Your task to perform on an android device: turn on location history Image 0: 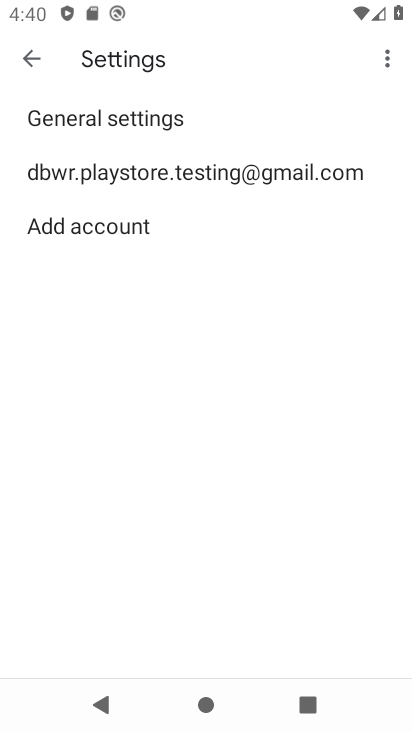
Step 0: press home button
Your task to perform on an android device: turn on location history Image 1: 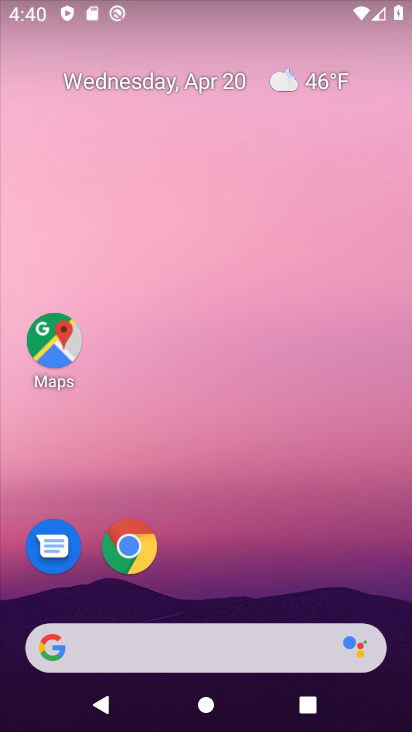
Step 1: drag from (333, 508) to (335, 44)
Your task to perform on an android device: turn on location history Image 2: 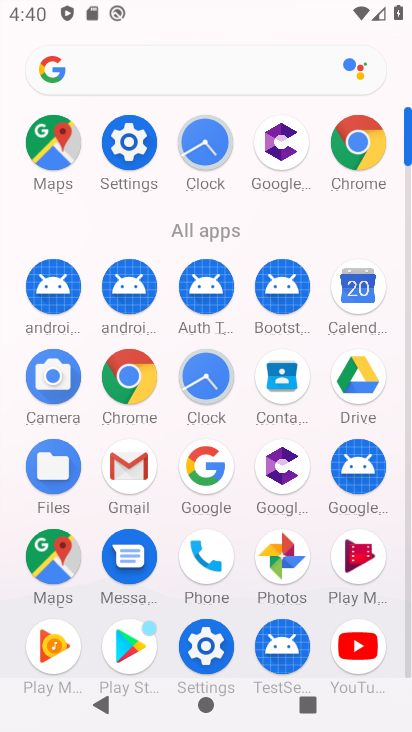
Step 2: click (106, 139)
Your task to perform on an android device: turn on location history Image 3: 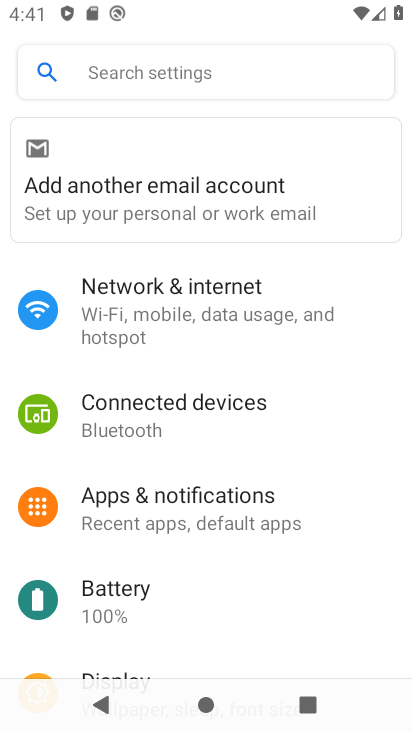
Step 3: drag from (282, 568) to (322, 246)
Your task to perform on an android device: turn on location history Image 4: 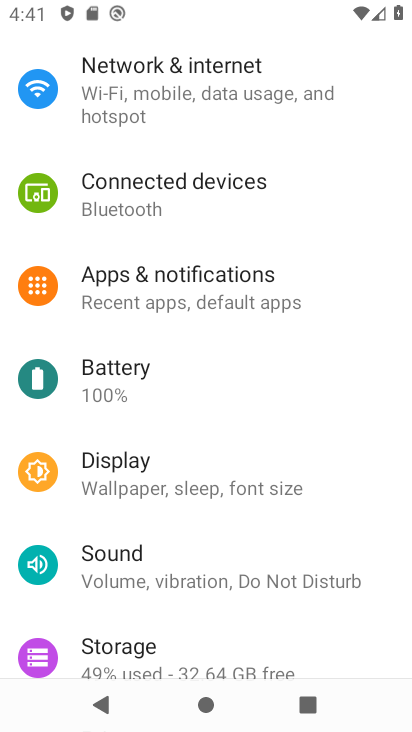
Step 4: drag from (164, 526) to (205, 216)
Your task to perform on an android device: turn on location history Image 5: 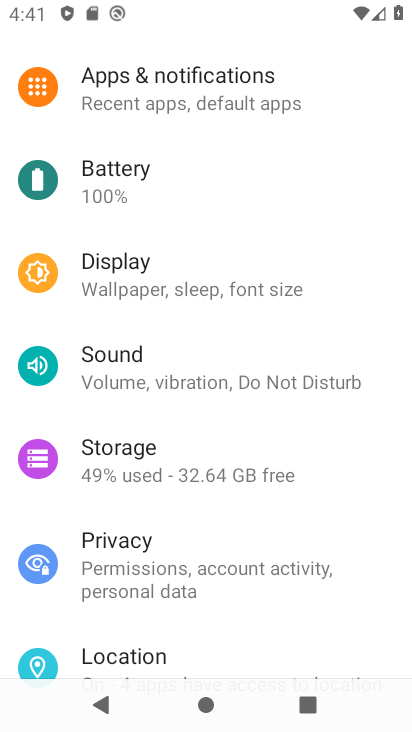
Step 5: drag from (206, 578) to (293, 245)
Your task to perform on an android device: turn on location history Image 6: 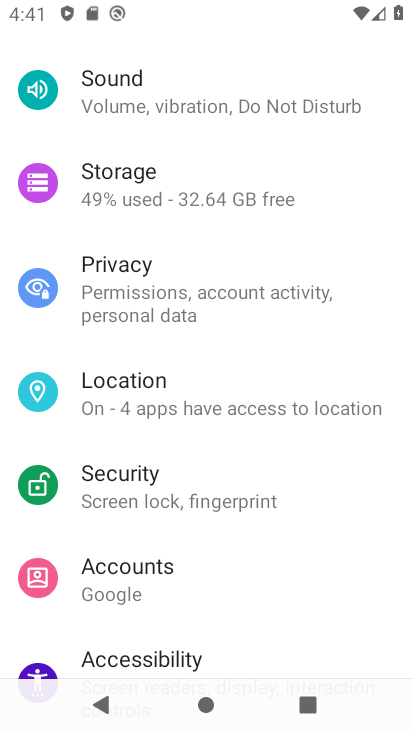
Step 6: click (175, 403)
Your task to perform on an android device: turn on location history Image 7: 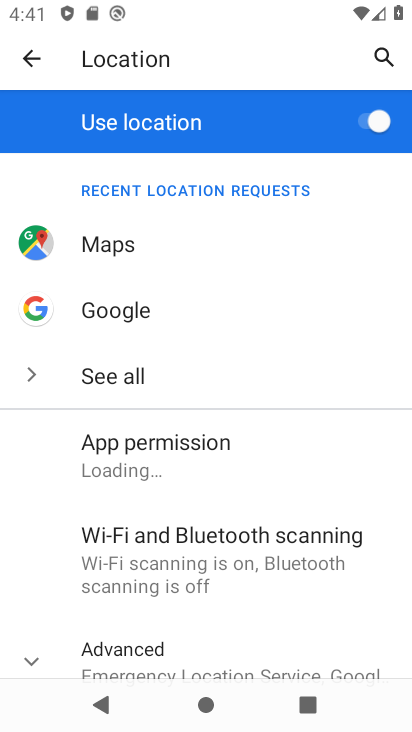
Step 7: drag from (153, 568) to (209, 257)
Your task to perform on an android device: turn on location history Image 8: 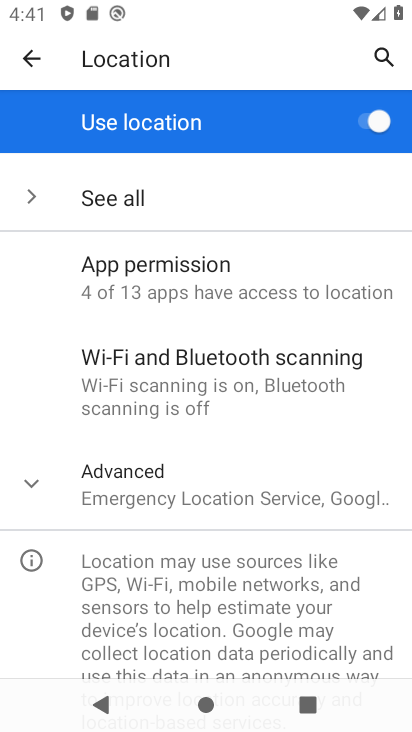
Step 8: click (144, 491)
Your task to perform on an android device: turn on location history Image 9: 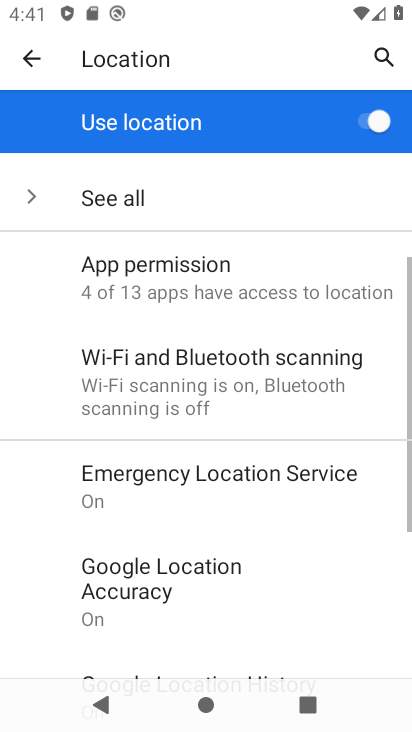
Step 9: drag from (208, 571) to (275, 235)
Your task to perform on an android device: turn on location history Image 10: 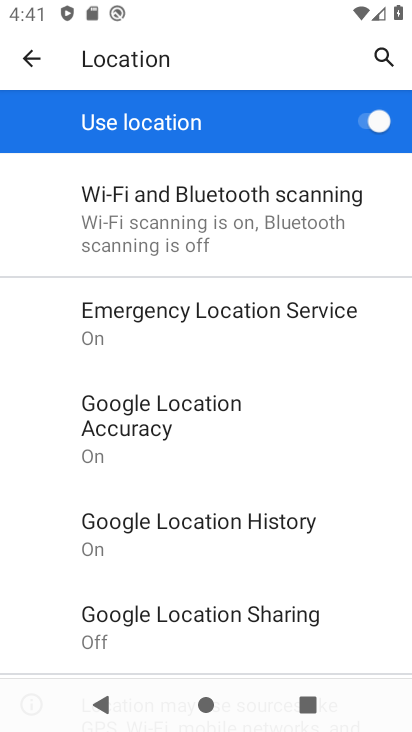
Step 10: click (206, 549)
Your task to perform on an android device: turn on location history Image 11: 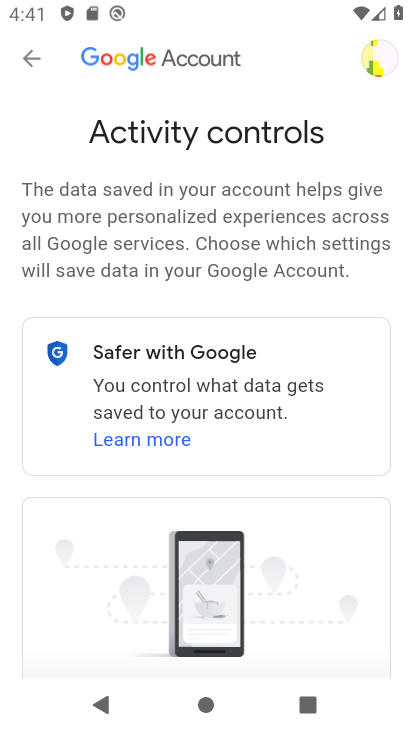
Step 11: drag from (265, 611) to (342, 344)
Your task to perform on an android device: turn on location history Image 12: 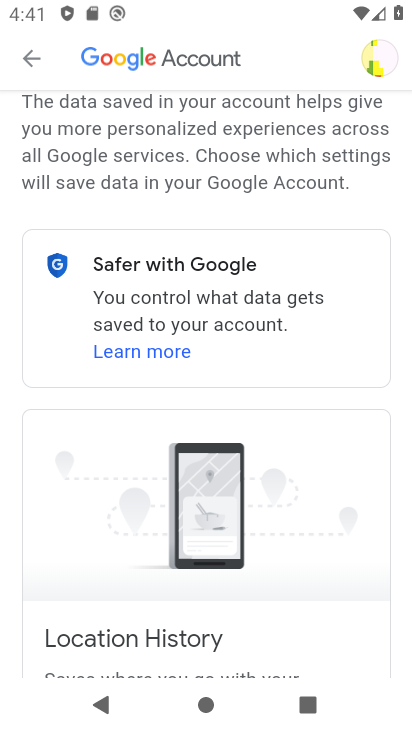
Step 12: drag from (283, 474) to (277, 151)
Your task to perform on an android device: turn on location history Image 13: 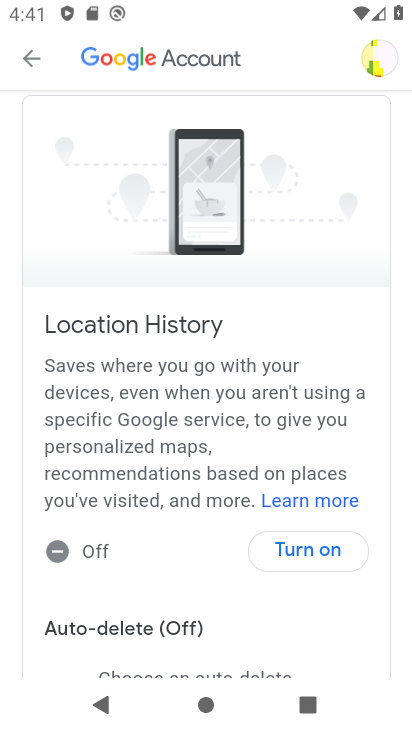
Step 13: drag from (197, 561) to (213, 201)
Your task to perform on an android device: turn on location history Image 14: 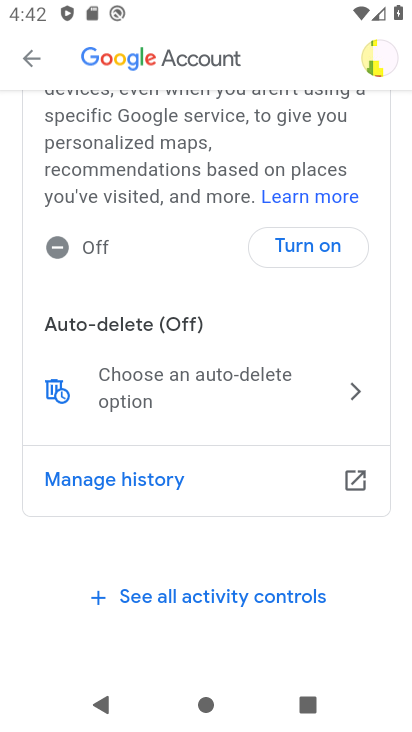
Step 14: click (296, 244)
Your task to perform on an android device: turn on location history Image 15: 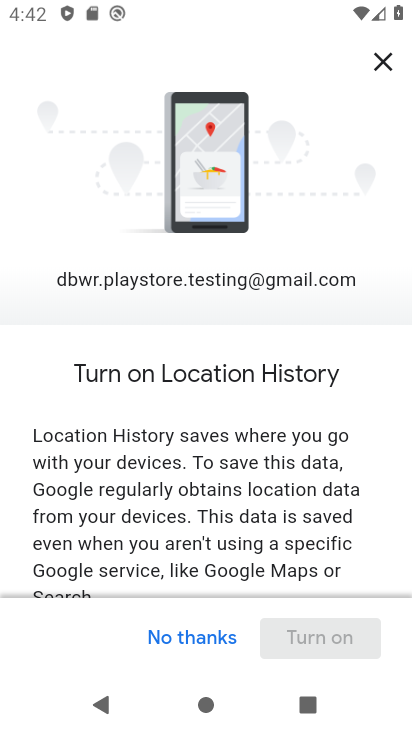
Step 15: drag from (308, 511) to (304, 136)
Your task to perform on an android device: turn on location history Image 16: 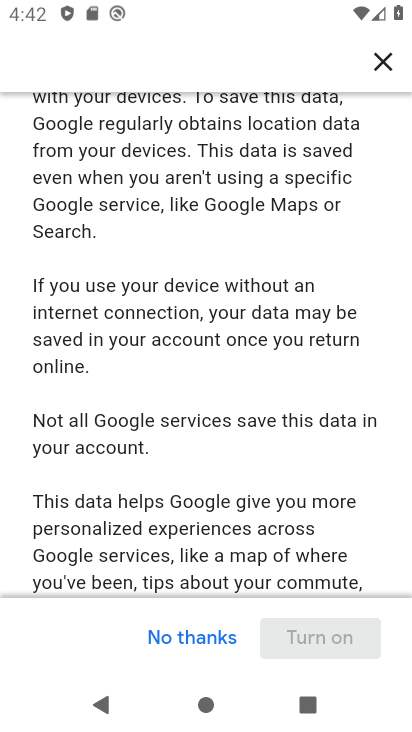
Step 16: drag from (333, 558) to (261, 161)
Your task to perform on an android device: turn on location history Image 17: 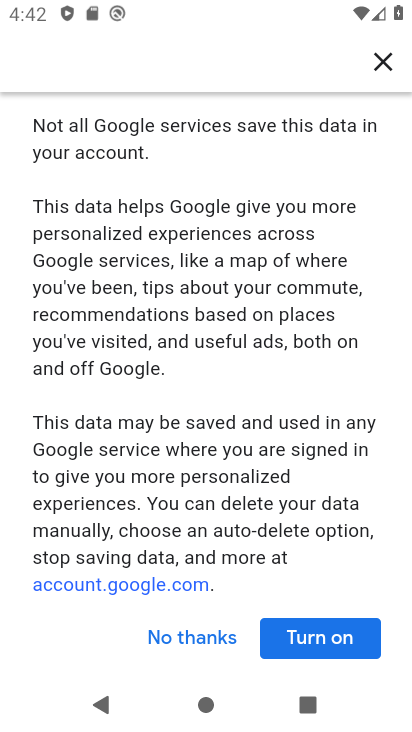
Step 17: click (326, 635)
Your task to perform on an android device: turn on location history Image 18: 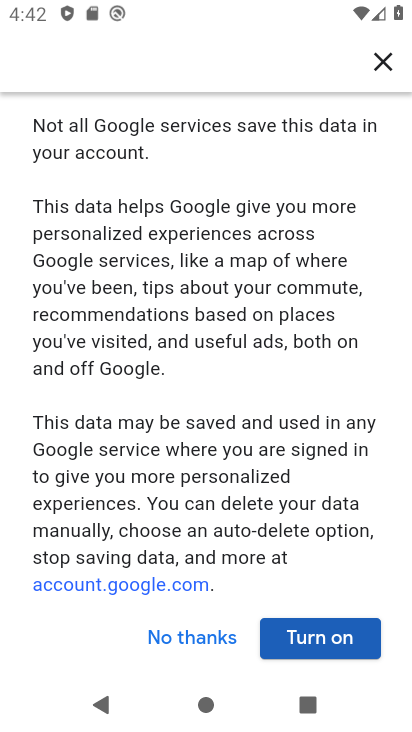
Step 18: click (330, 639)
Your task to perform on an android device: turn on location history Image 19: 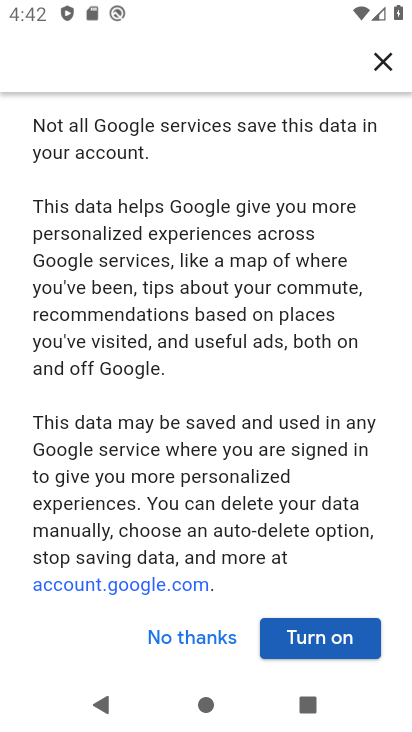
Step 19: click (332, 644)
Your task to perform on an android device: turn on location history Image 20: 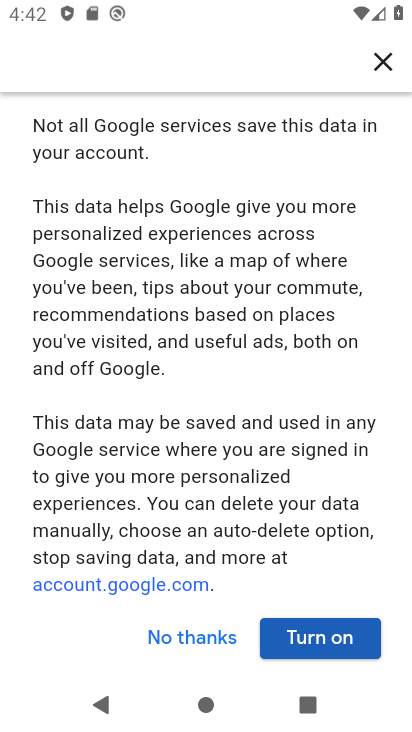
Step 20: click (332, 641)
Your task to perform on an android device: turn on location history Image 21: 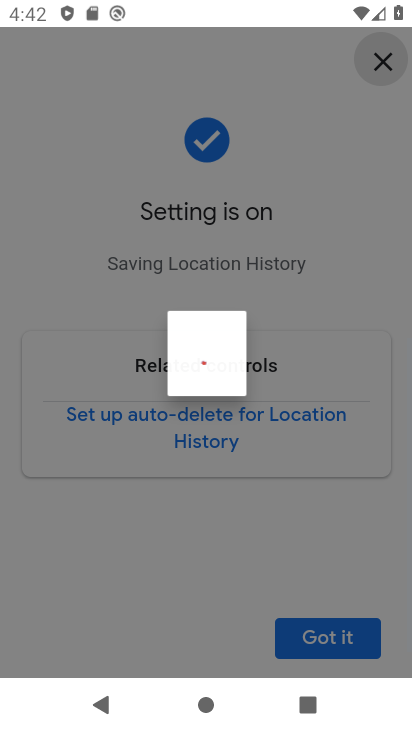
Step 21: click (332, 641)
Your task to perform on an android device: turn on location history Image 22: 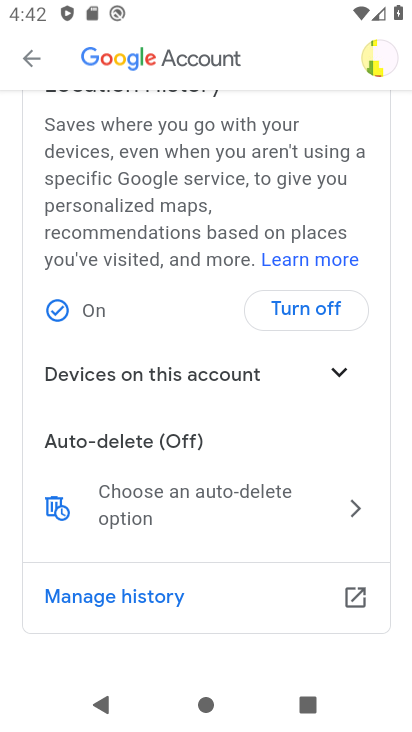
Step 22: task complete